Your task to perform on an android device: Open location settings Image 0: 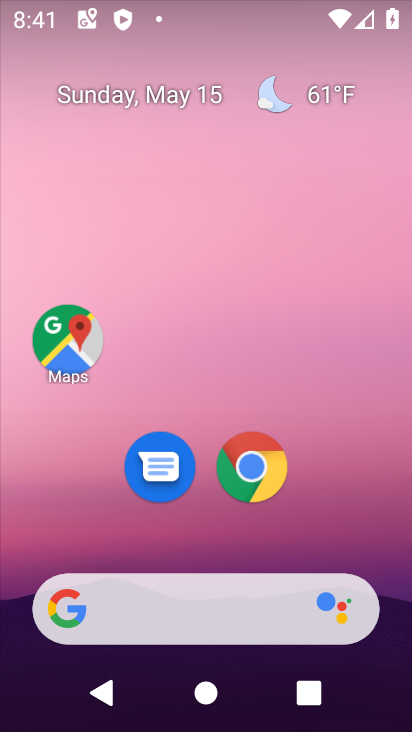
Step 0: drag from (222, 538) to (276, 39)
Your task to perform on an android device: Open location settings Image 1: 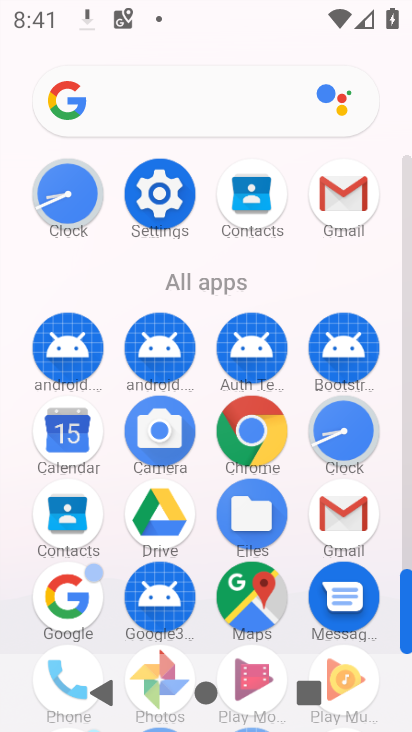
Step 1: click (154, 212)
Your task to perform on an android device: Open location settings Image 2: 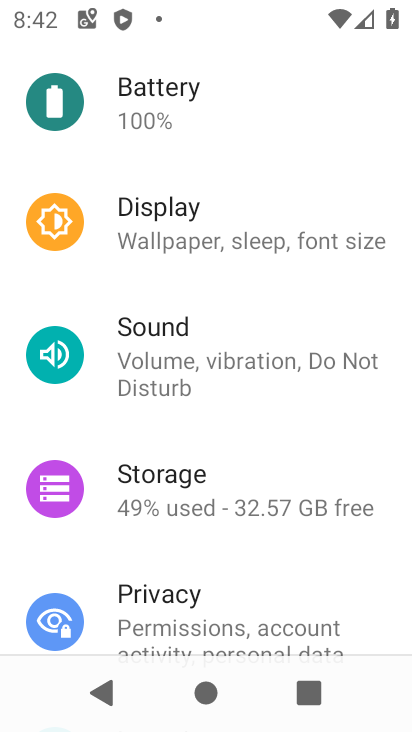
Step 2: drag from (216, 609) to (235, 37)
Your task to perform on an android device: Open location settings Image 3: 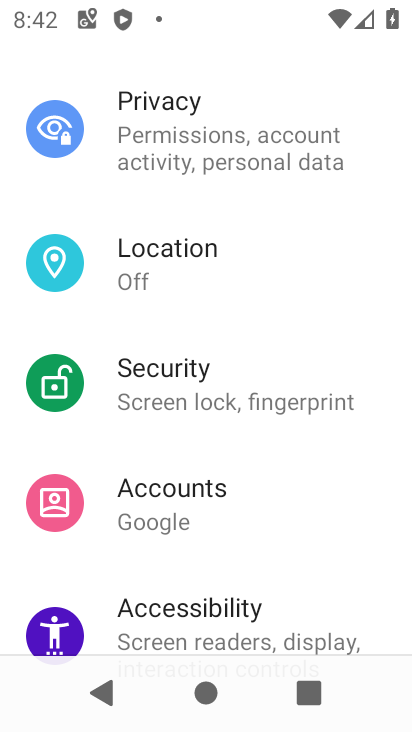
Step 3: click (226, 273)
Your task to perform on an android device: Open location settings Image 4: 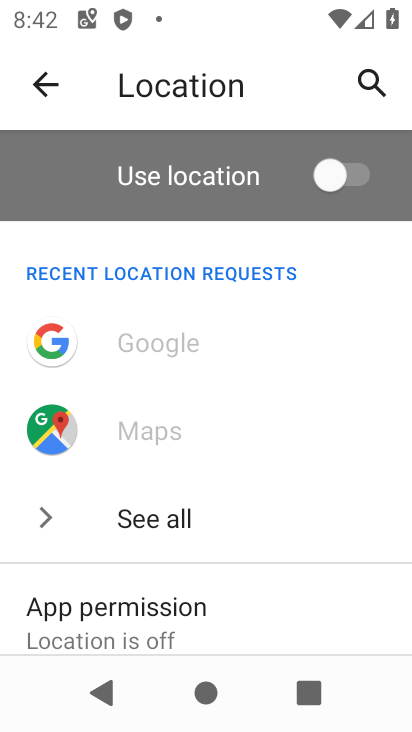
Step 4: task complete